Your task to perform on an android device: turn on data saver in the chrome app Image 0: 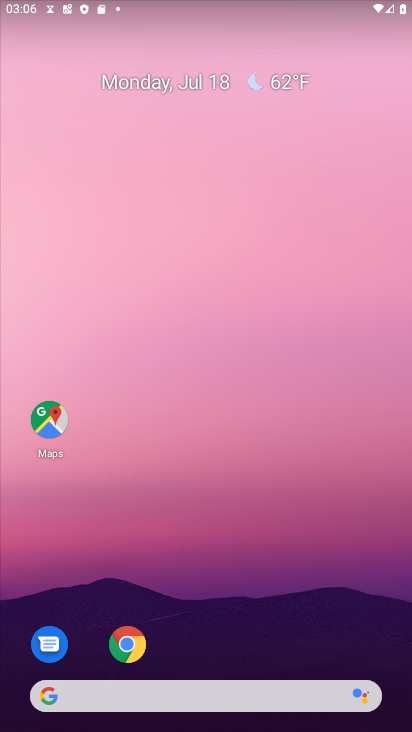
Step 0: drag from (231, 482) to (275, 149)
Your task to perform on an android device: turn on data saver in the chrome app Image 1: 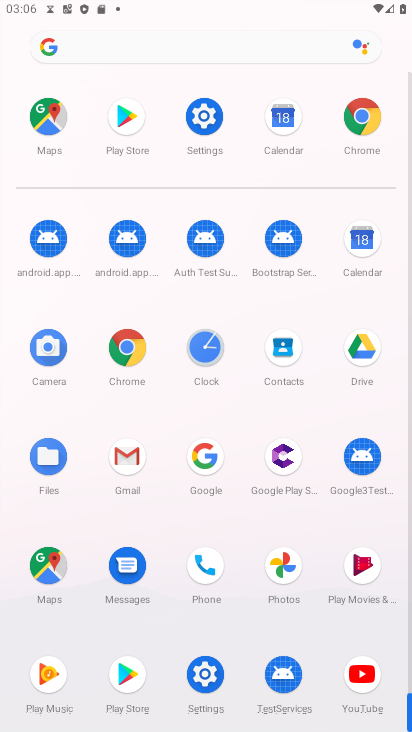
Step 1: click (365, 110)
Your task to perform on an android device: turn on data saver in the chrome app Image 2: 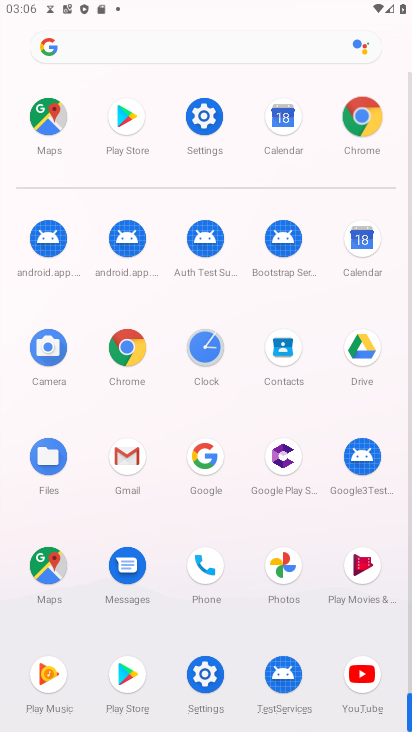
Step 2: click (359, 111)
Your task to perform on an android device: turn on data saver in the chrome app Image 3: 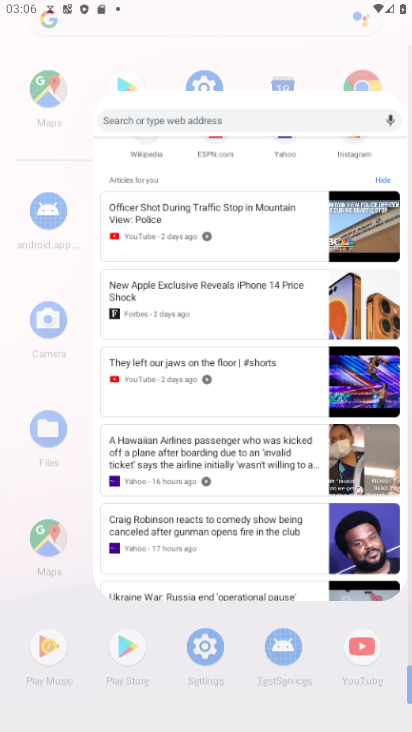
Step 3: click (354, 113)
Your task to perform on an android device: turn on data saver in the chrome app Image 4: 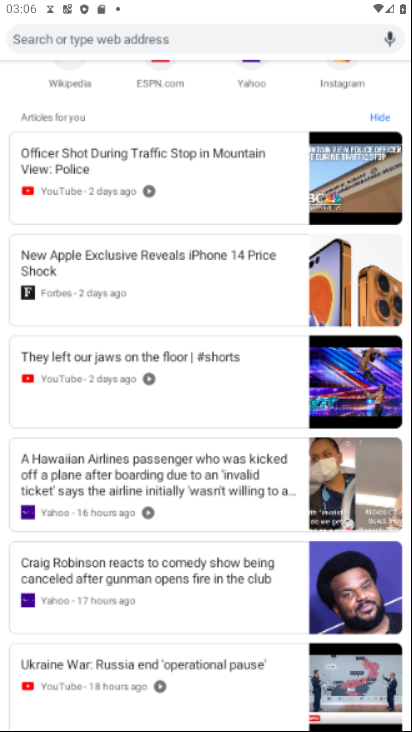
Step 4: click (357, 140)
Your task to perform on an android device: turn on data saver in the chrome app Image 5: 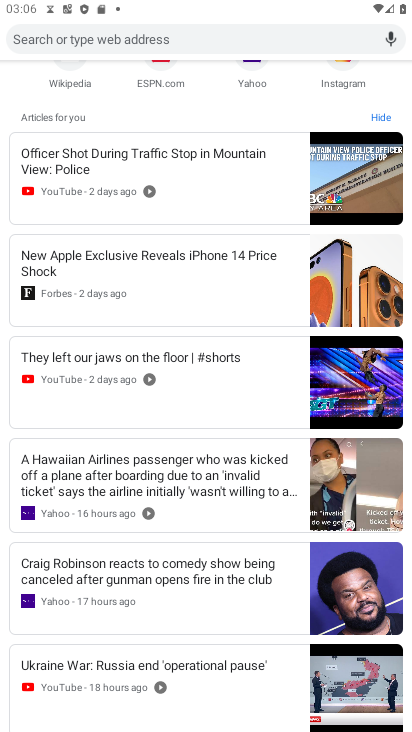
Step 5: drag from (153, 189) to (249, 617)
Your task to perform on an android device: turn on data saver in the chrome app Image 6: 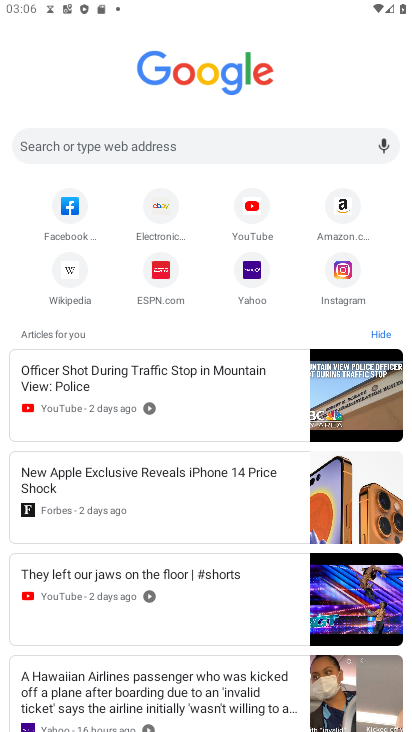
Step 6: drag from (273, 276) to (360, 658)
Your task to perform on an android device: turn on data saver in the chrome app Image 7: 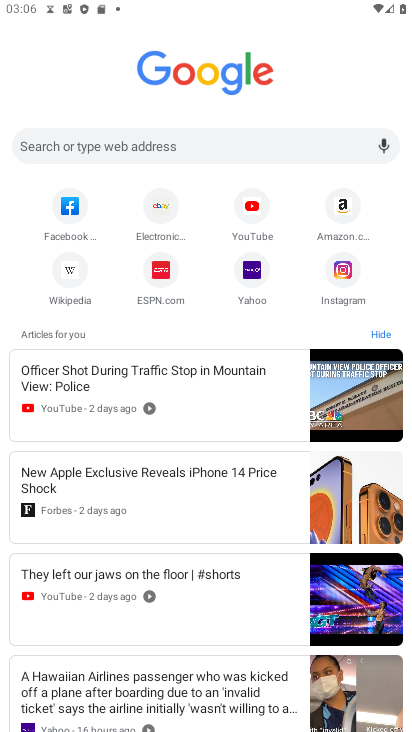
Step 7: drag from (361, 240) to (382, 702)
Your task to perform on an android device: turn on data saver in the chrome app Image 8: 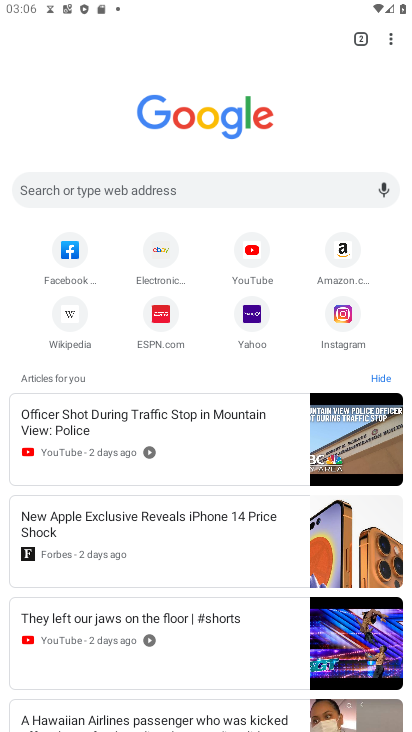
Step 8: drag from (387, 36) to (252, 323)
Your task to perform on an android device: turn on data saver in the chrome app Image 9: 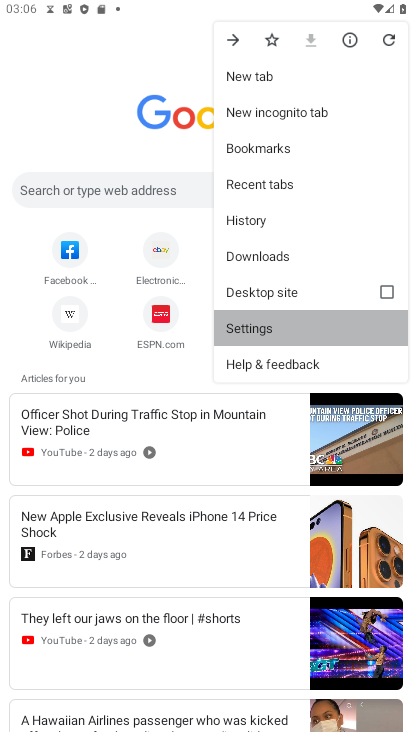
Step 9: click (252, 323)
Your task to perform on an android device: turn on data saver in the chrome app Image 10: 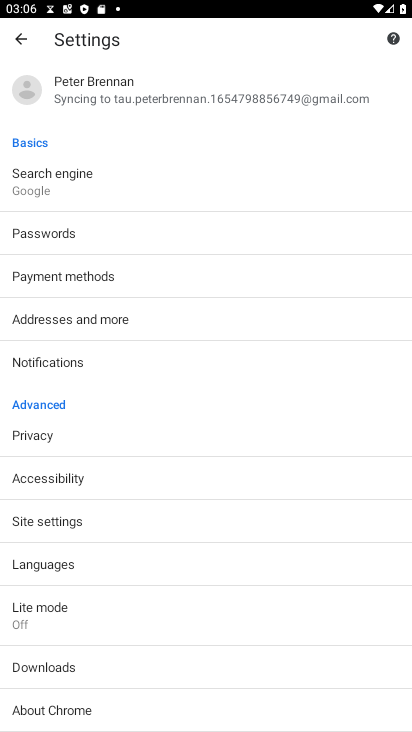
Step 10: click (46, 605)
Your task to perform on an android device: turn on data saver in the chrome app Image 11: 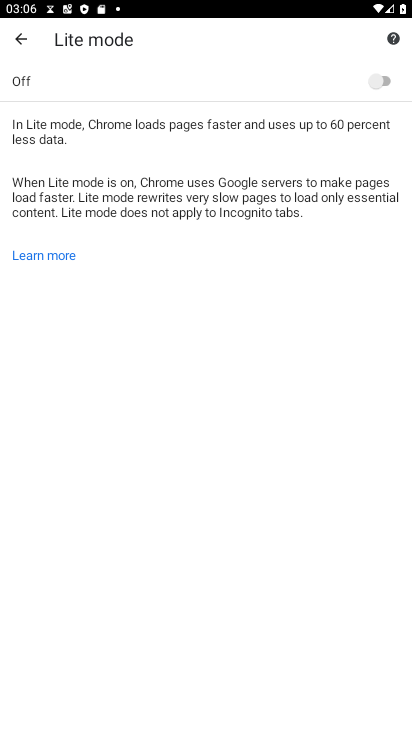
Step 11: click (351, 95)
Your task to perform on an android device: turn on data saver in the chrome app Image 12: 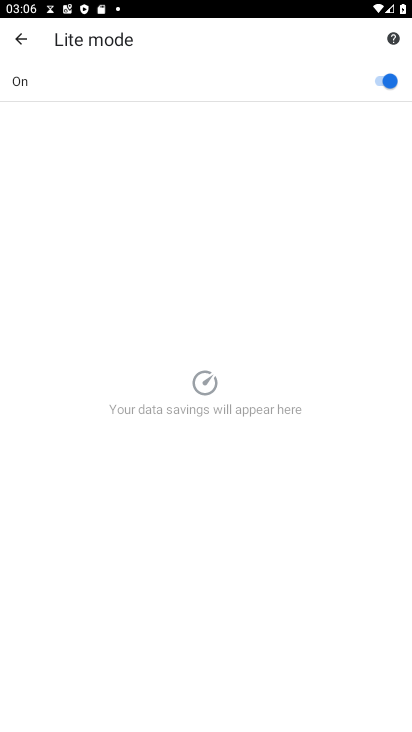
Step 12: task complete